Your task to perform on an android device: change the clock style Image 0: 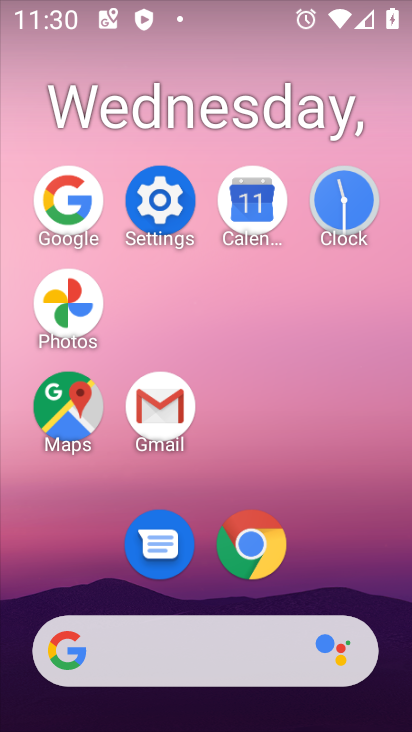
Step 0: click (338, 191)
Your task to perform on an android device: change the clock style Image 1: 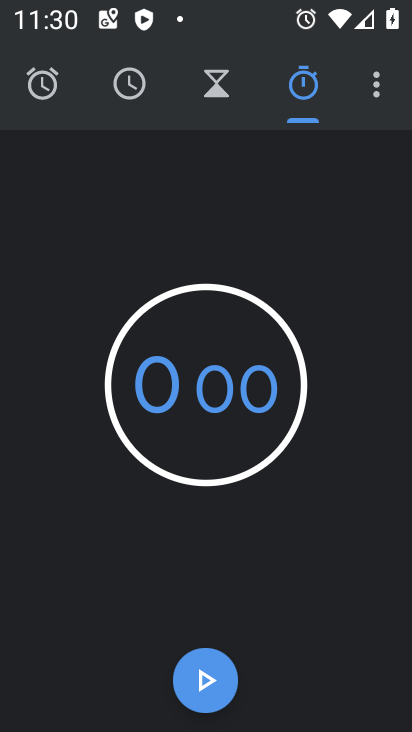
Step 1: click (377, 96)
Your task to perform on an android device: change the clock style Image 2: 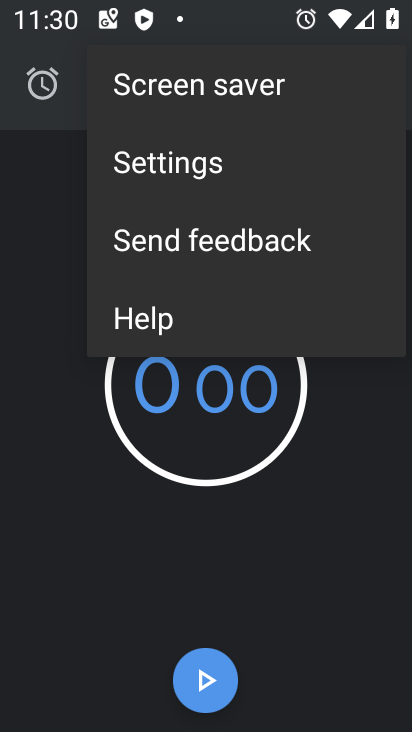
Step 2: click (179, 166)
Your task to perform on an android device: change the clock style Image 3: 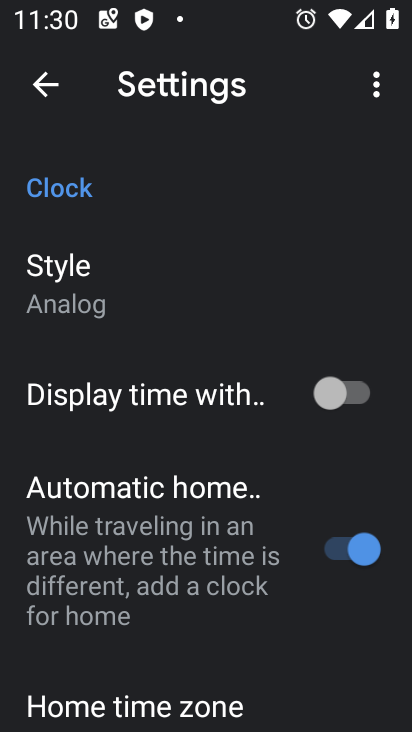
Step 3: click (132, 276)
Your task to perform on an android device: change the clock style Image 4: 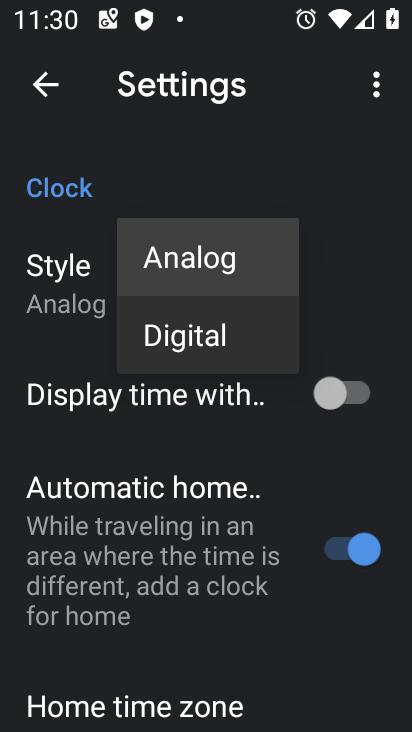
Step 4: click (188, 335)
Your task to perform on an android device: change the clock style Image 5: 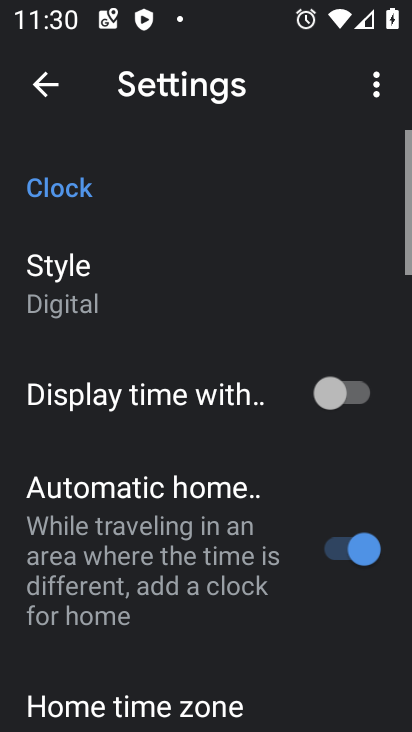
Step 5: task complete